Your task to perform on an android device: turn vacation reply on in the gmail app Image 0: 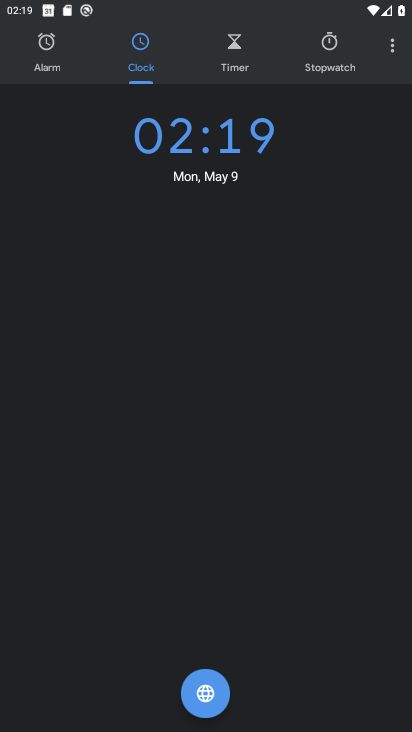
Step 0: press home button
Your task to perform on an android device: turn vacation reply on in the gmail app Image 1: 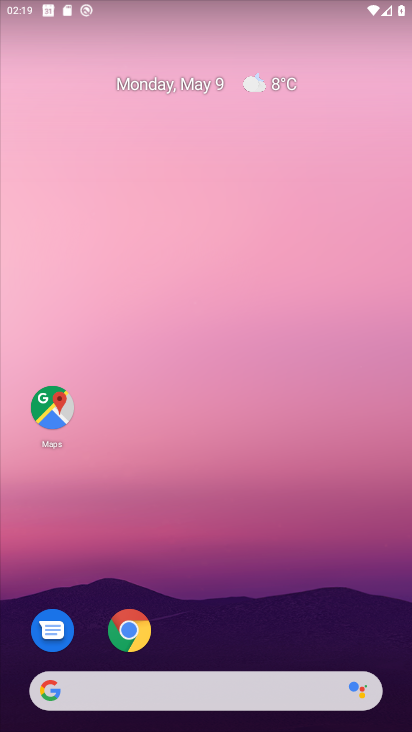
Step 1: drag from (216, 610) to (354, 10)
Your task to perform on an android device: turn vacation reply on in the gmail app Image 2: 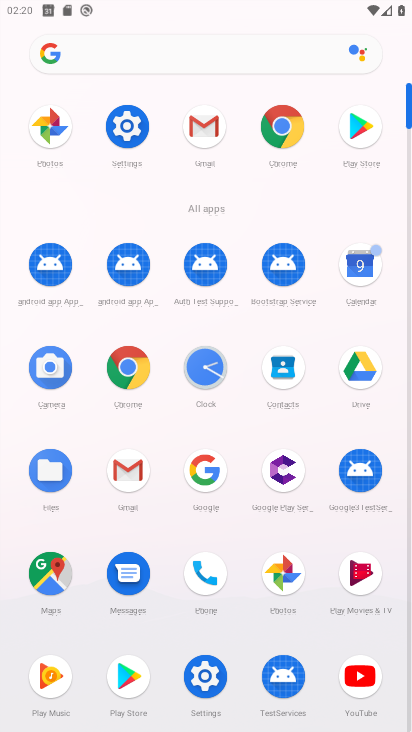
Step 2: click (115, 470)
Your task to perform on an android device: turn vacation reply on in the gmail app Image 3: 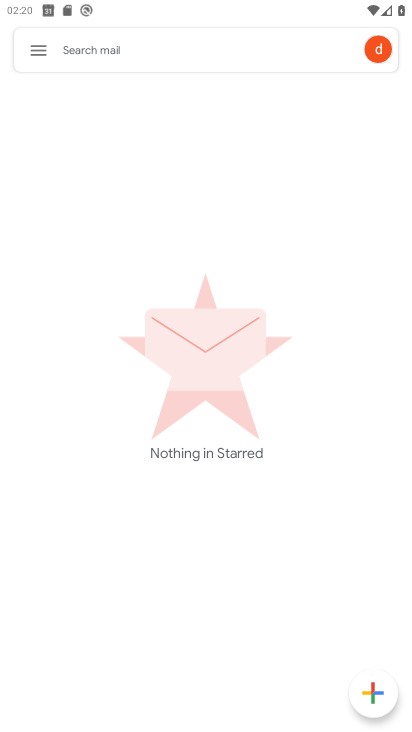
Step 3: click (42, 55)
Your task to perform on an android device: turn vacation reply on in the gmail app Image 4: 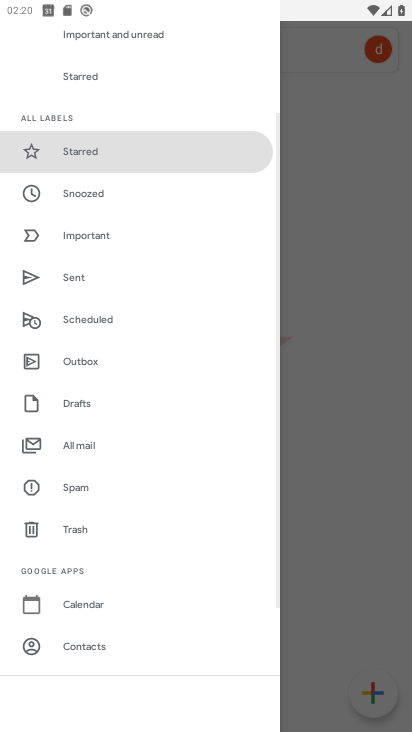
Step 4: drag from (135, 551) to (132, 157)
Your task to perform on an android device: turn vacation reply on in the gmail app Image 5: 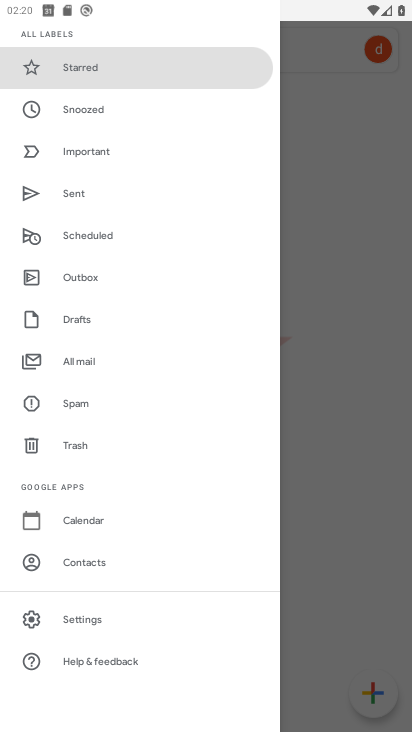
Step 5: click (91, 610)
Your task to perform on an android device: turn vacation reply on in the gmail app Image 6: 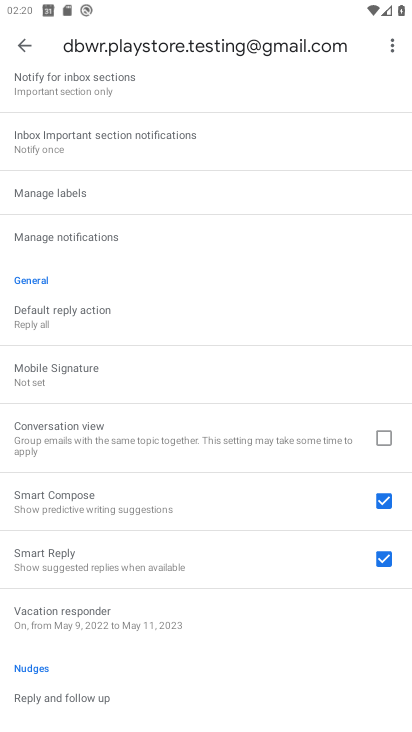
Step 6: drag from (167, 494) to (210, 192)
Your task to perform on an android device: turn vacation reply on in the gmail app Image 7: 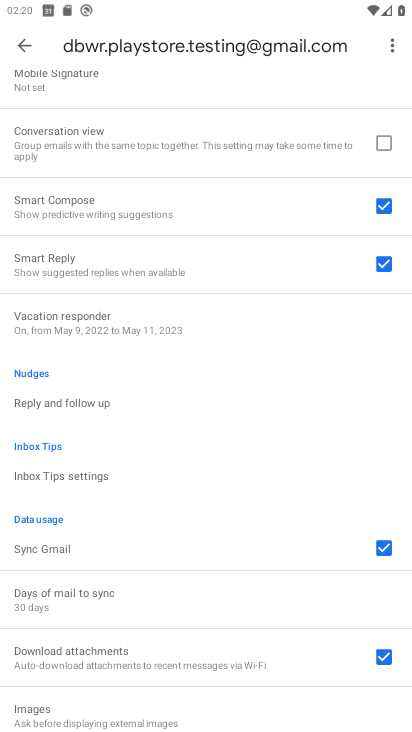
Step 7: click (112, 319)
Your task to perform on an android device: turn vacation reply on in the gmail app Image 8: 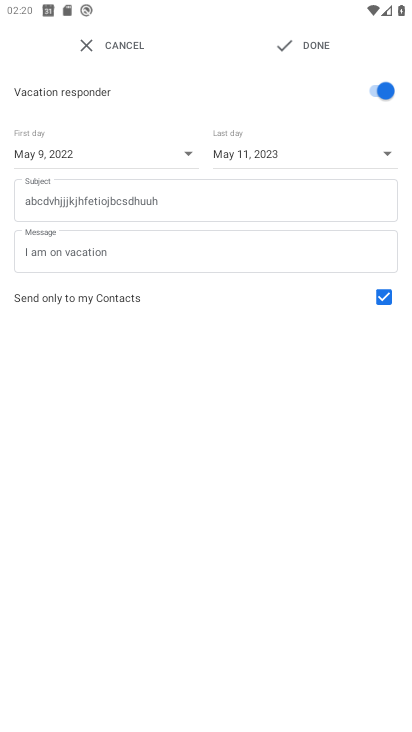
Step 8: task complete